Your task to perform on an android device: change the clock display to digital Image 0: 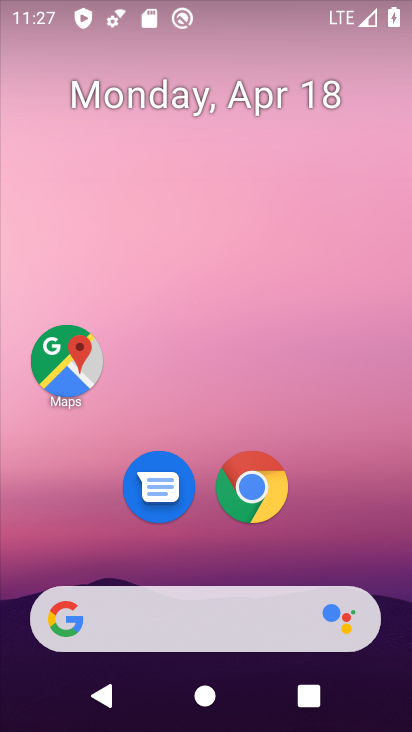
Step 0: drag from (205, 554) to (207, 211)
Your task to perform on an android device: change the clock display to digital Image 1: 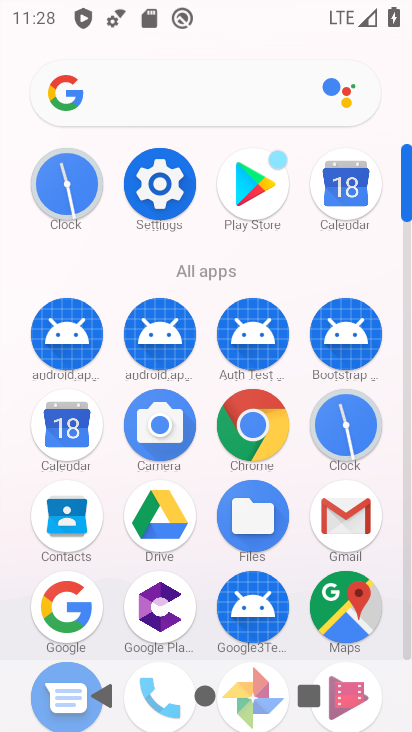
Step 1: click (66, 177)
Your task to perform on an android device: change the clock display to digital Image 2: 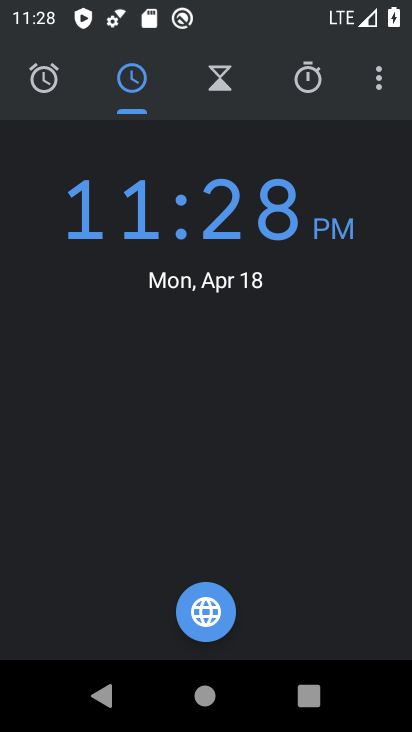
Step 2: click (380, 83)
Your task to perform on an android device: change the clock display to digital Image 3: 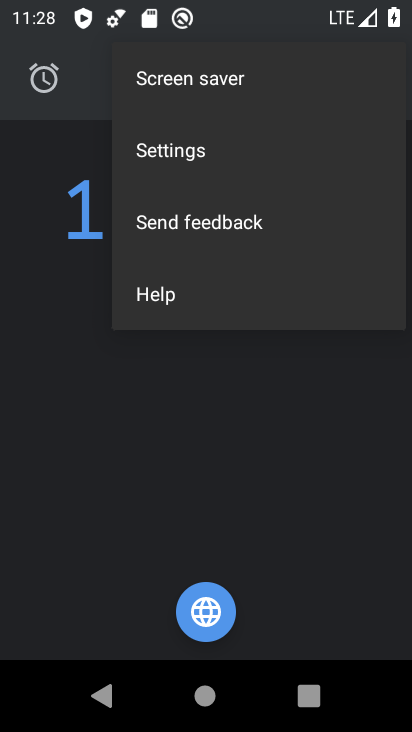
Step 3: click (186, 150)
Your task to perform on an android device: change the clock display to digital Image 4: 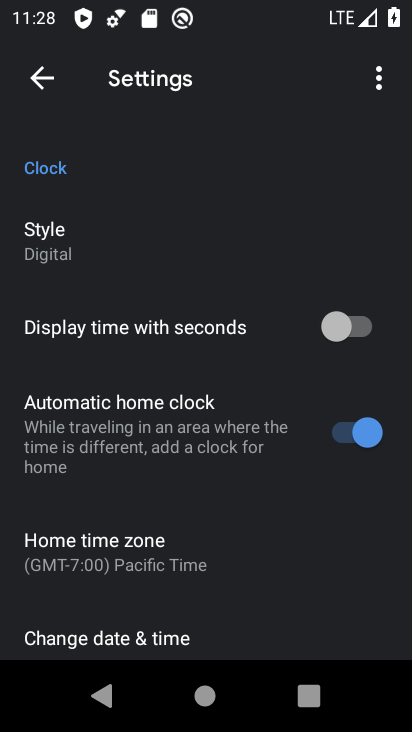
Step 4: click (50, 243)
Your task to perform on an android device: change the clock display to digital Image 5: 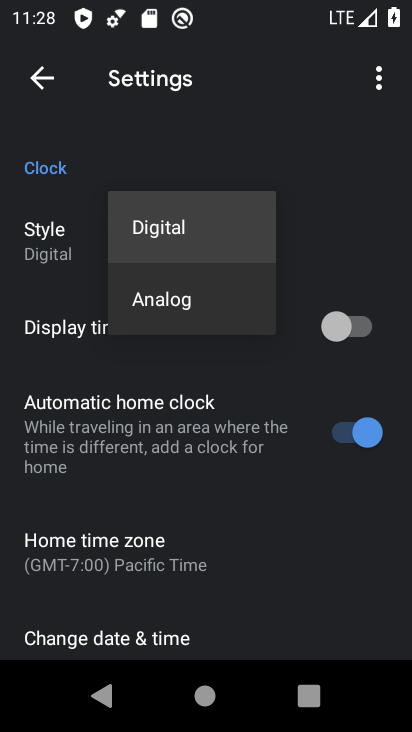
Step 5: click (156, 241)
Your task to perform on an android device: change the clock display to digital Image 6: 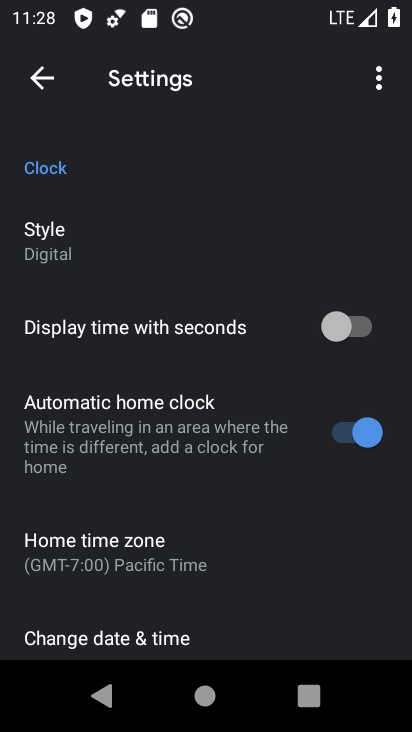
Step 6: task complete